Your task to perform on an android device: Show me recent news Image 0: 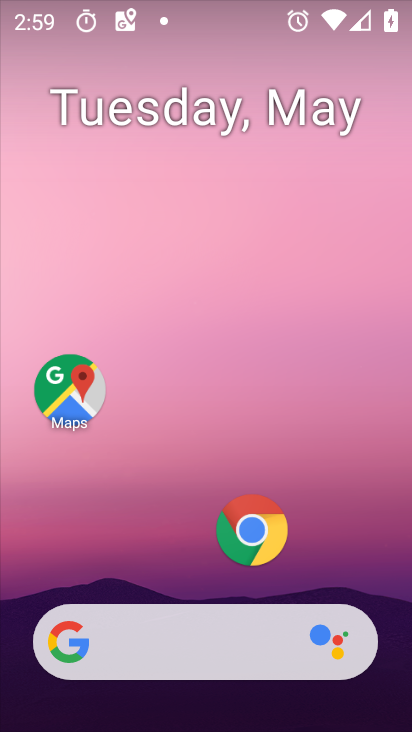
Step 0: click (197, 630)
Your task to perform on an android device: Show me recent news Image 1: 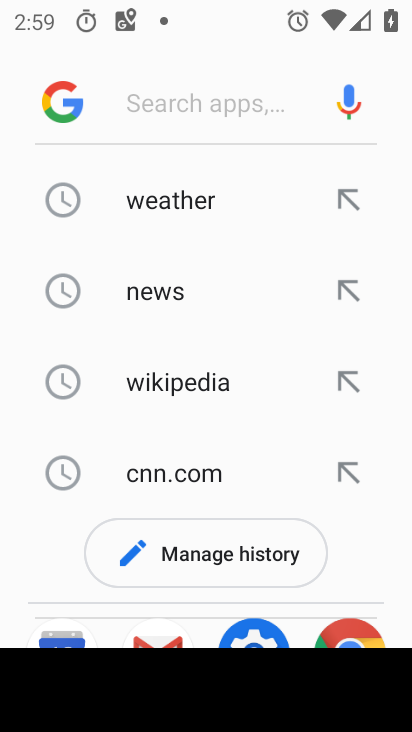
Step 1: click (129, 291)
Your task to perform on an android device: Show me recent news Image 2: 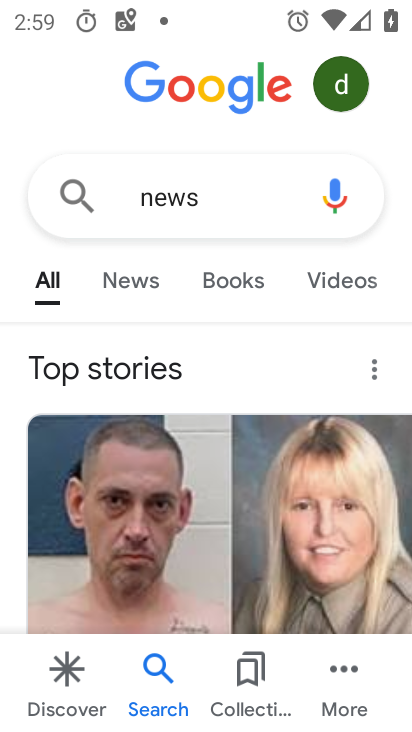
Step 2: task complete